Your task to perform on an android device: find snoozed emails in the gmail app Image 0: 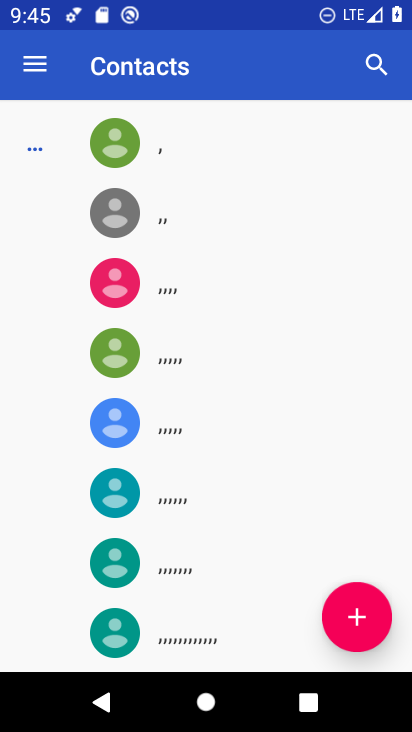
Step 0: press home button
Your task to perform on an android device: find snoozed emails in the gmail app Image 1: 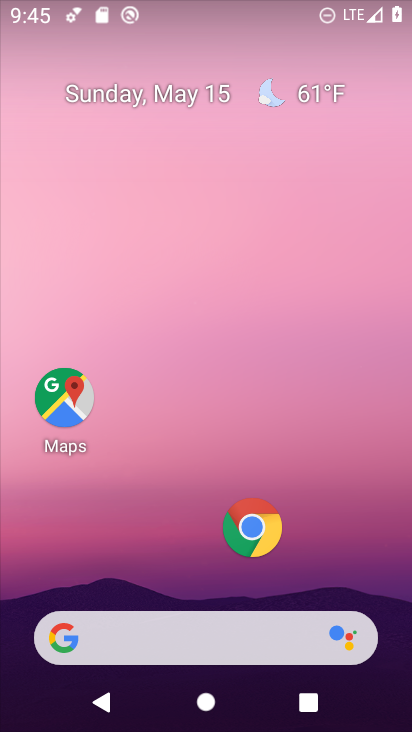
Step 1: drag from (204, 583) to (197, 36)
Your task to perform on an android device: find snoozed emails in the gmail app Image 2: 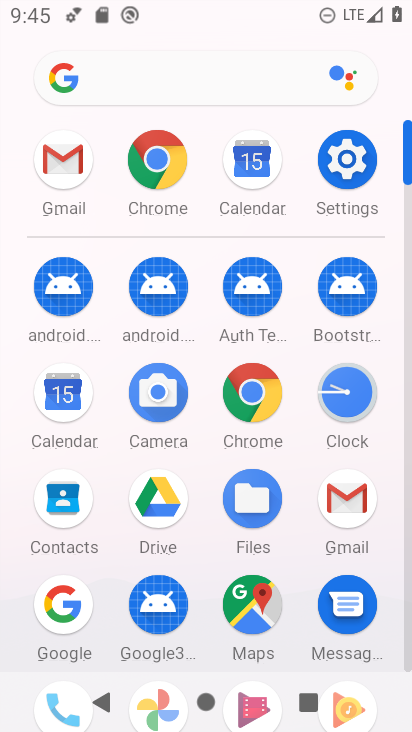
Step 2: click (348, 490)
Your task to perform on an android device: find snoozed emails in the gmail app Image 3: 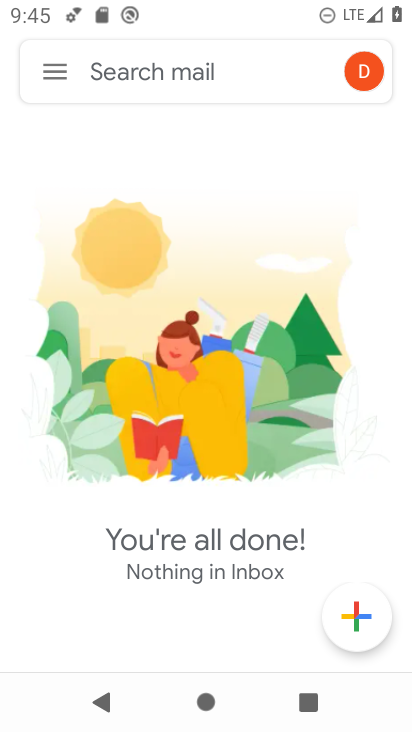
Step 3: click (51, 71)
Your task to perform on an android device: find snoozed emails in the gmail app Image 4: 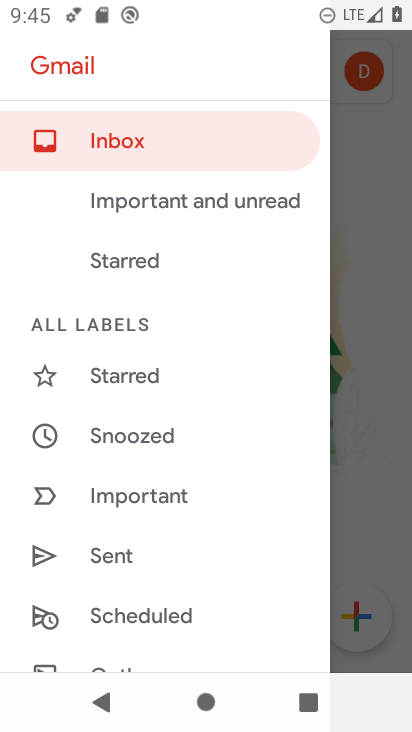
Step 4: click (153, 445)
Your task to perform on an android device: find snoozed emails in the gmail app Image 5: 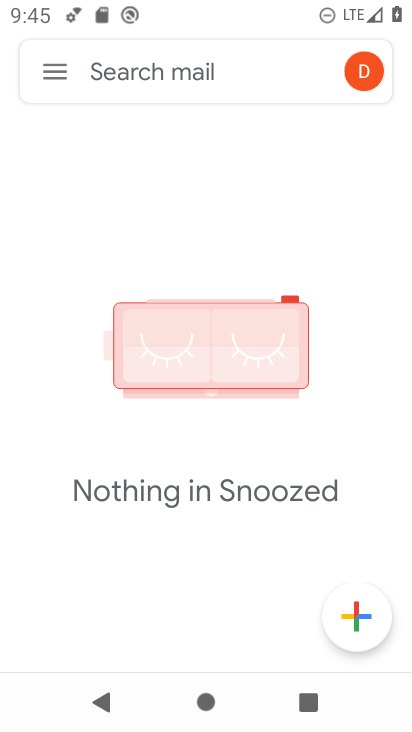
Step 5: task complete